Your task to perform on an android device: check android version Image 0: 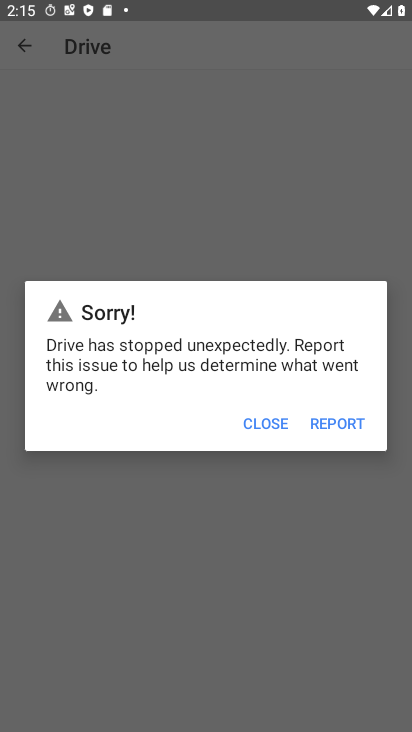
Step 0: press home button
Your task to perform on an android device: check android version Image 1: 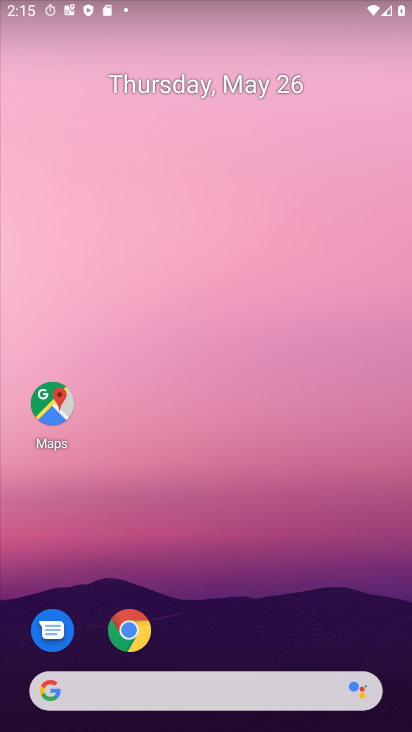
Step 1: drag from (273, 579) to (324, 52)
Your task to perform on an android device: check android version Image 2: 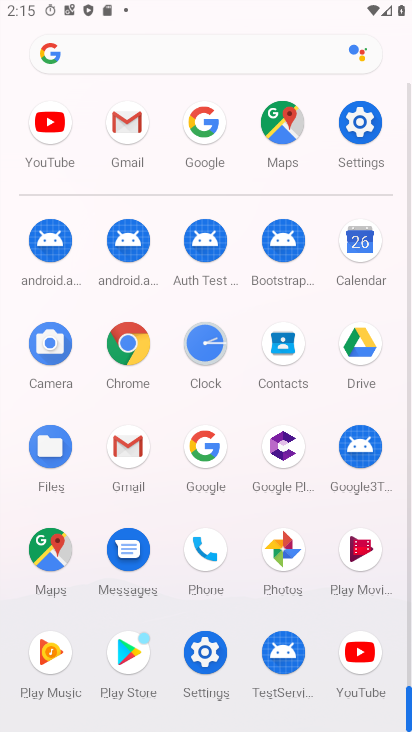
Step 2: click (356, 125)
Your task to perform on an android device: check android version Image 3: 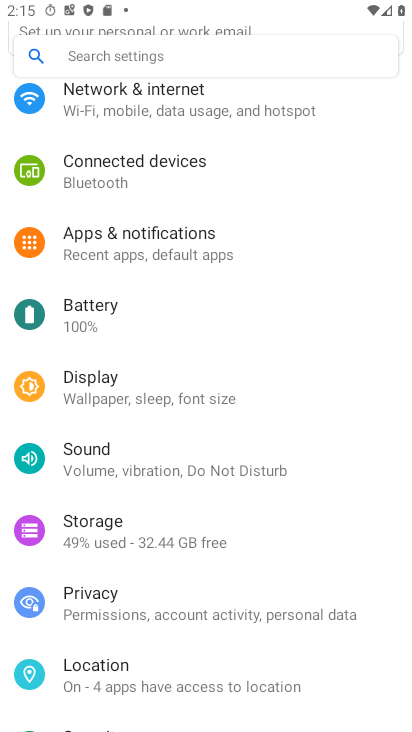
Step 3: drag from (170, 672) to (173, 313)
Your task to perform on an android device: check android version Image 4: 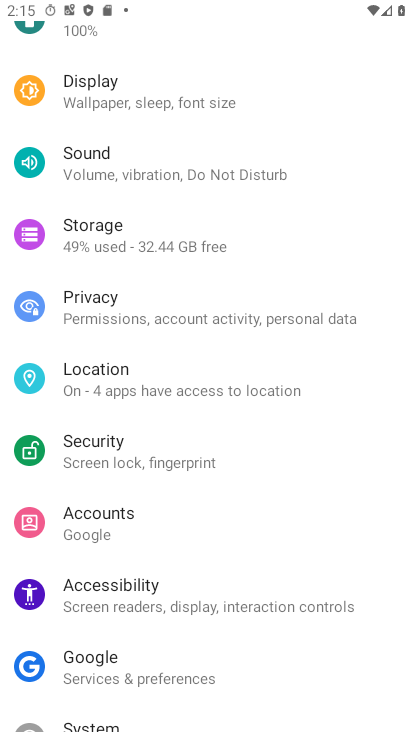
Step 4: drag from (248, 659) to (286, 346)
Your task to perform on an android device: check android version Image 5: 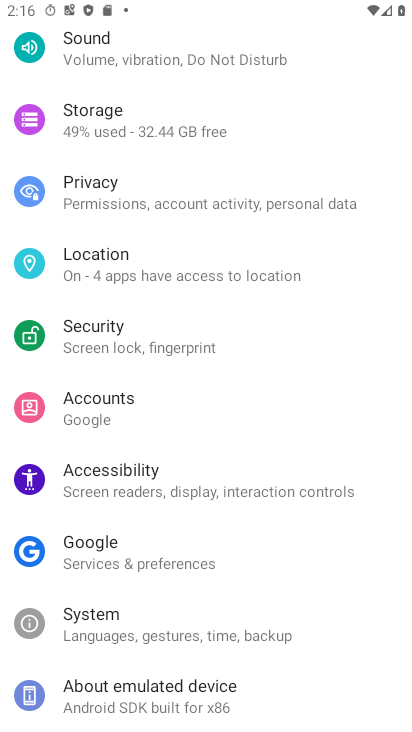
Step 5: drag from (317, 657) to (289, 342)
Your task to perform on an android device: check android version Image 6: 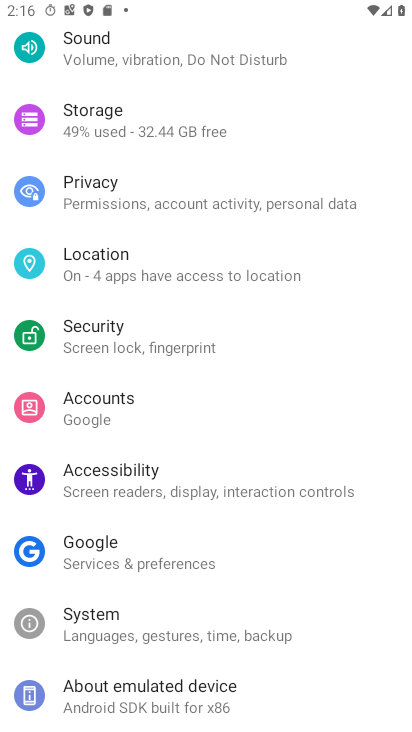
Step 6: drag from (210, 671) to (252, 340)
Your task to perform on an android device: check android version Image 7: 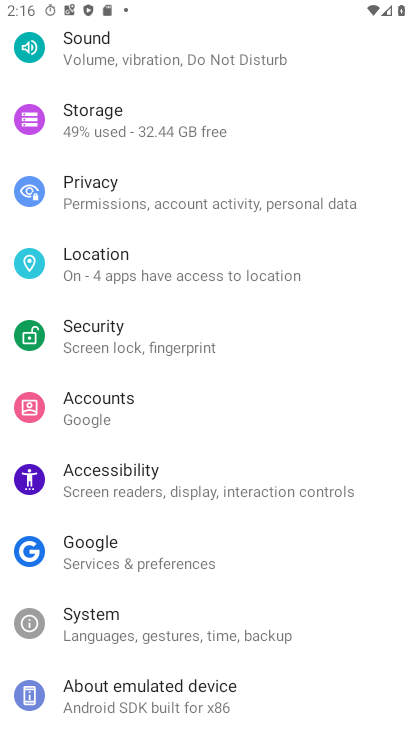
Step 7: drag from (256, 187) to (183, 713)
Your task to perform on an android device: check android version Image 8: 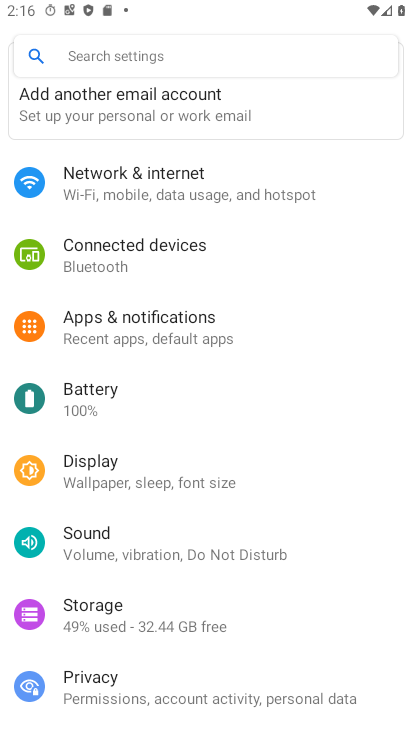
Step 8: drag from (151, 241) to (146, 601)
Your task to perform on an android device: check android version Image 9: 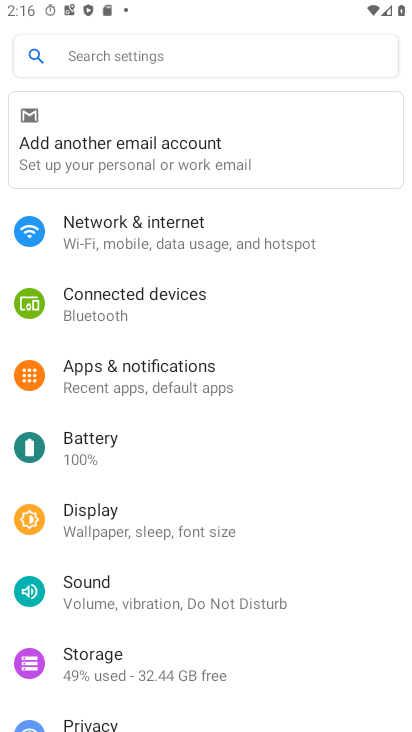
Step 9: drag from (289, 677) to (356, 161)
Your task to perform on an android device: check android version Image 10: 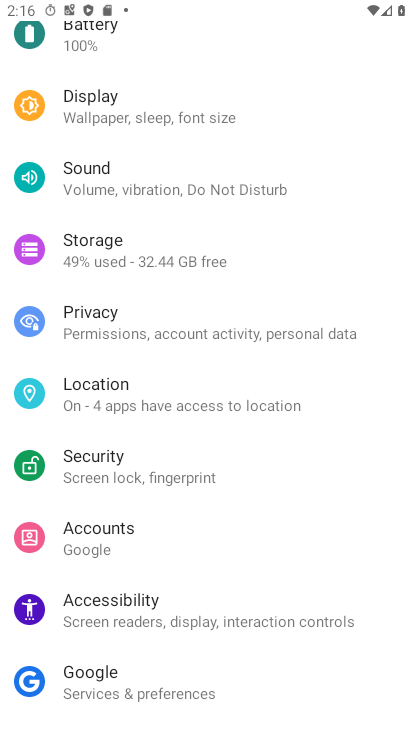
Step 10: drag from (178, 683) to (221, 268)
Your task to perform on an android device: check android version Image 11: 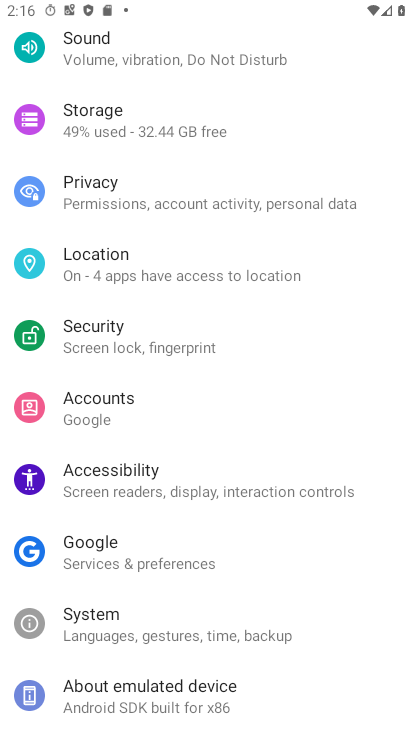
Step 11: click (241, 684)
Your task to perform on an android device: check android version Image 12: 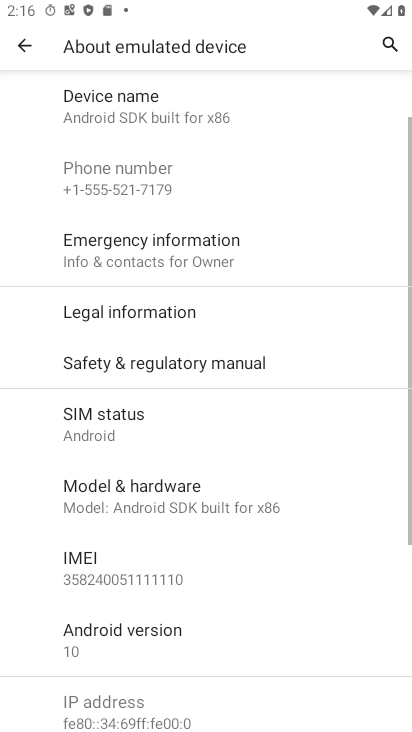
Step 12: click (177, 629)
Your task to perform on an android device: check android version Image 13: 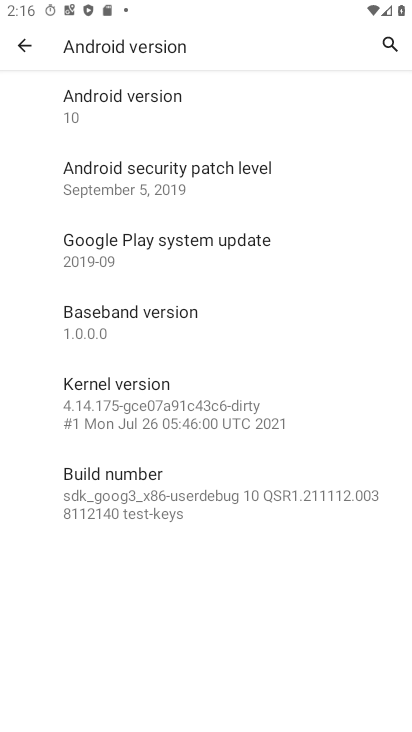
Step 13: task complete